Your task to perform on an android device: Open Google Chrome and open the bookmarks view Image 0: 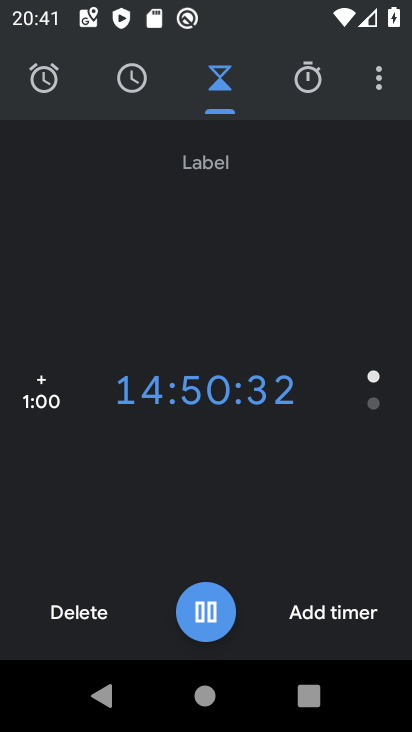
Step 0: press home button
Your task to perform on an android device: Open Google Chrome and open the bookmarks view Image 1: 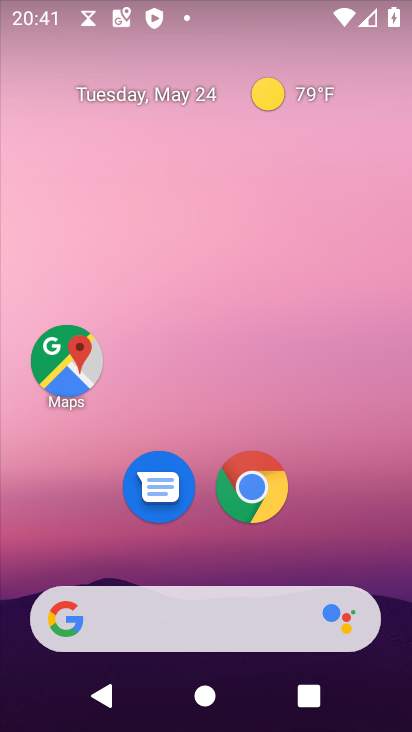
Step 1: drag from (31, 582) to (290, 85)
Your task to perform on an android device: Open Google Chrome and open the bookmarks view Image 2: 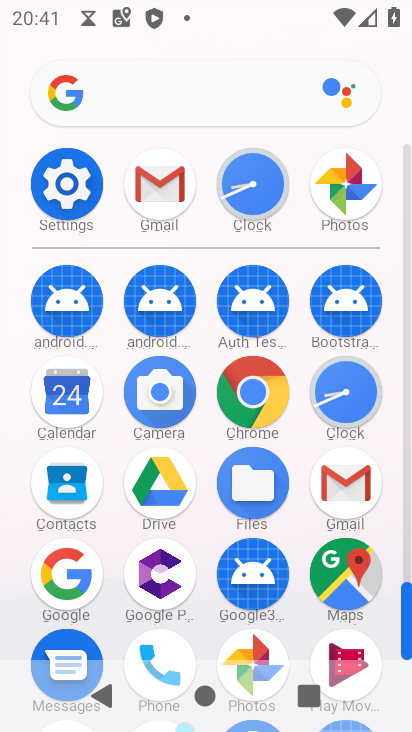
Step 2: click (254, 394)
Your task to perform on an android device: Open Google Chrome and open the bookmarks view Image 3: 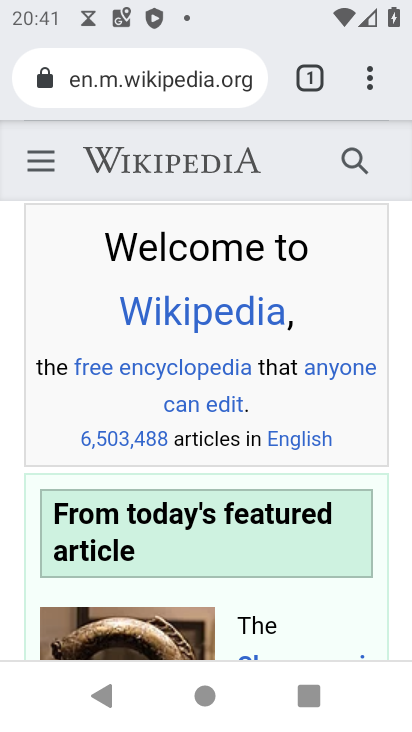
Step 3: click (365, 82)
Your task to perform on an android device: Open Google Chrome and open the bookmarks view Image 4: 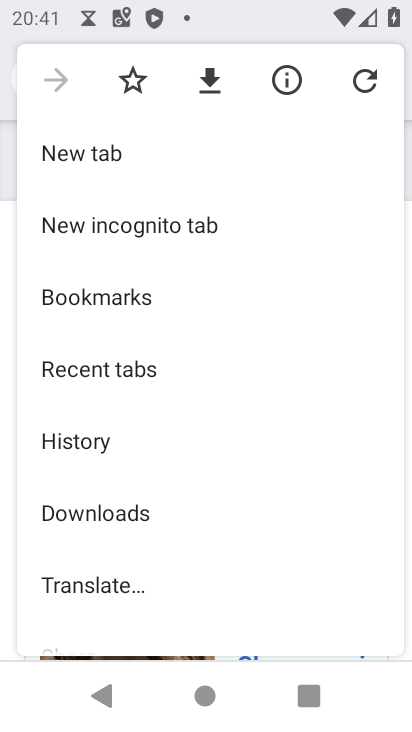
Step 4: click (154, 297)
Your task to perform on an android device: Open Google Chrome and open the bookmarks view Image 5: 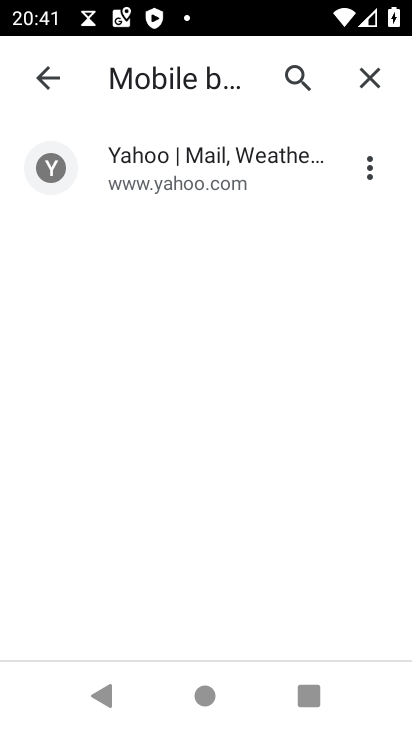
Step 5: task complete